Your task to perform on an android device: turn on data saver in the chrome app Image 0: 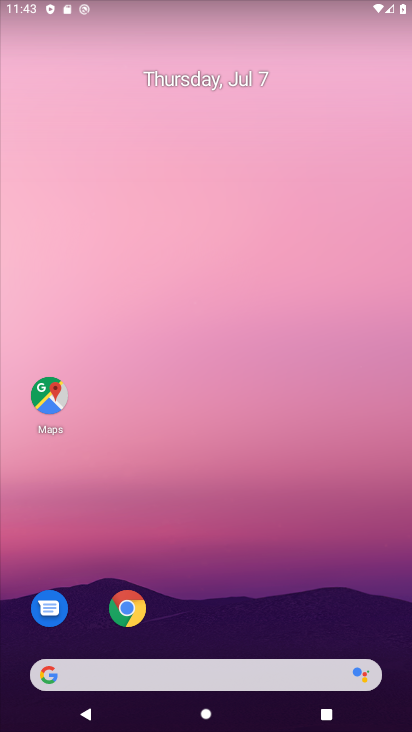
Step 0: click (118, 601)
Your task to perform on an android device: turn on data saver in the chrome app Image 1: 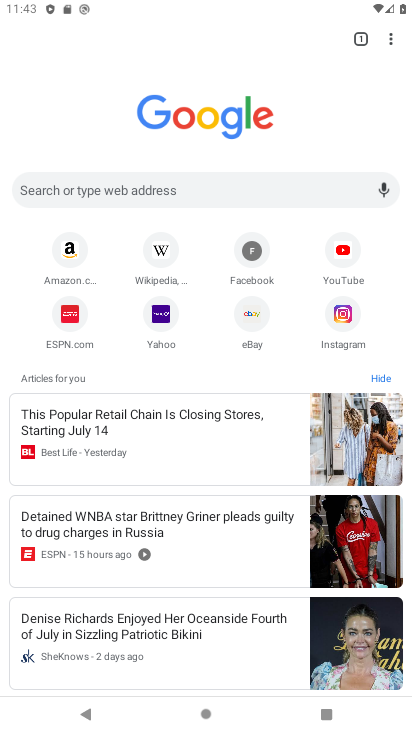
Step 1: click (390, 37)
Your task to perform on an android device: turn on data saver in the chrome app Image 2: 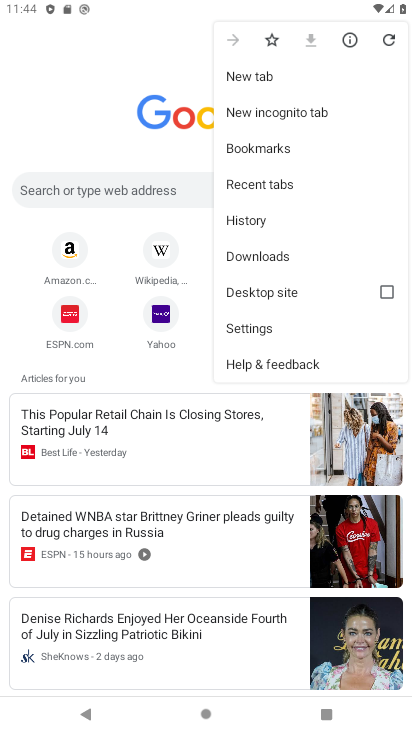
Step 2: click (294, 324)
Your task to perform on an android device: turn on data saver in the chrome app Image 3: 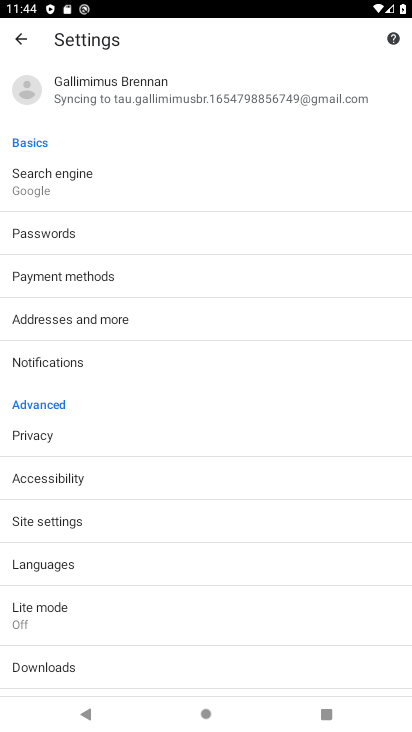
Step 3: click (81, 636)
Your task to perform on an android device: turn on data saver in the chrome app Image 4: 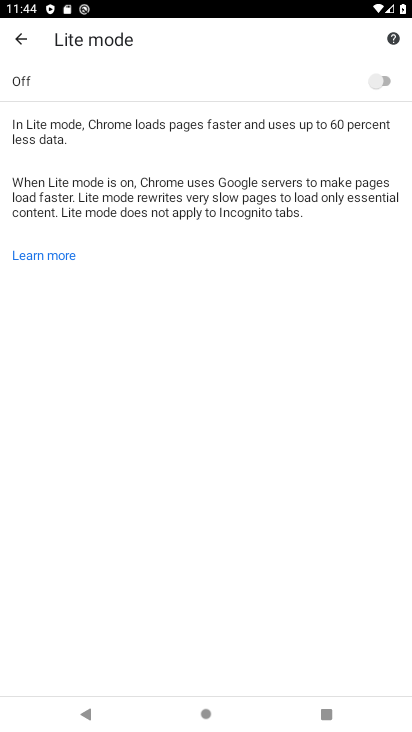
Step 4: click (370, 82)
Your task to perform on an android device: turn on data saver in the chrome app Image 5: 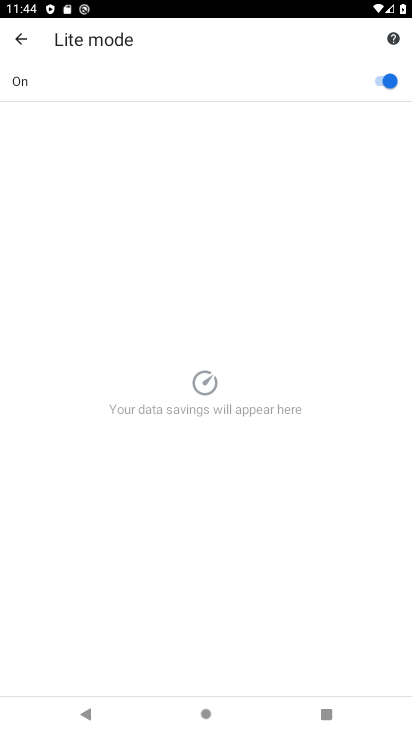
Step 5: task complete